Your task to perform on an android device: When is my next appointment? Image 0: 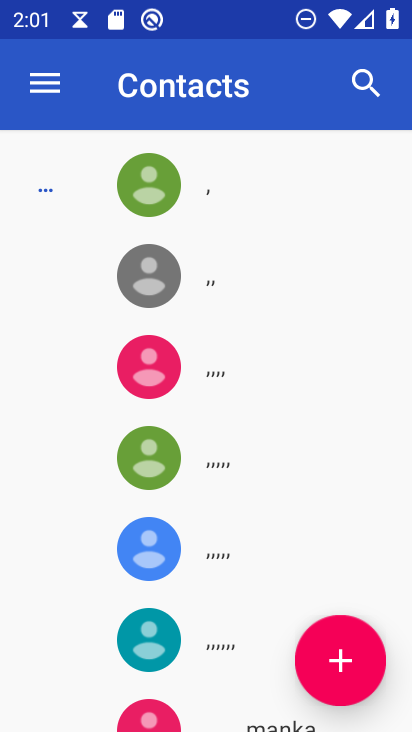
Step 0: press home button
Your task to perform on an android device: When is my next appointment? Image 1: 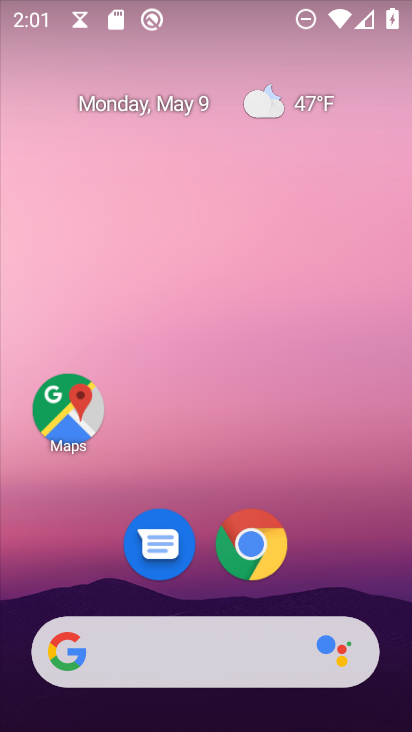
Step 1: drag from (317, 511) to (323, 137)
Your task to perform on an android device: When is my next appointment? Image 2: 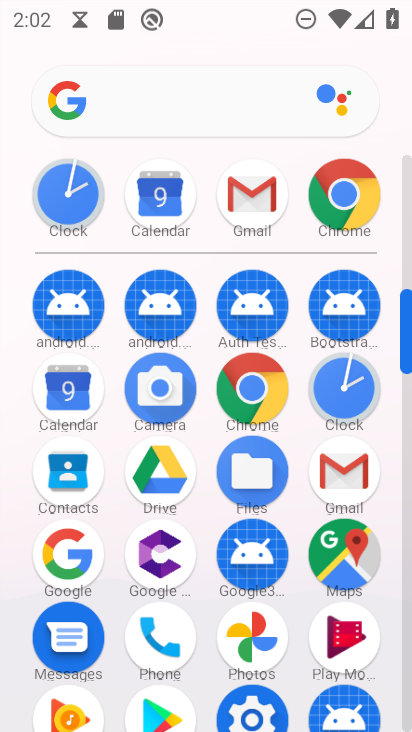
Step 2: click (56, 399)
Your task to perform on an android device: When is my next appointment? Image 3: 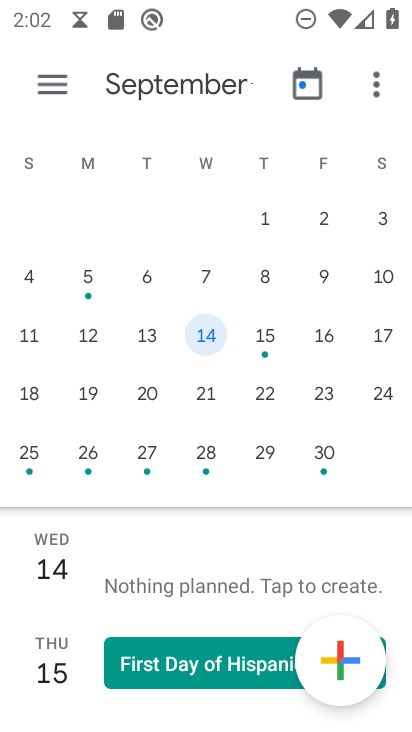
Step 3: click (267, 337)
Your task to perform on an android device: When is my next appointment? Image 4: 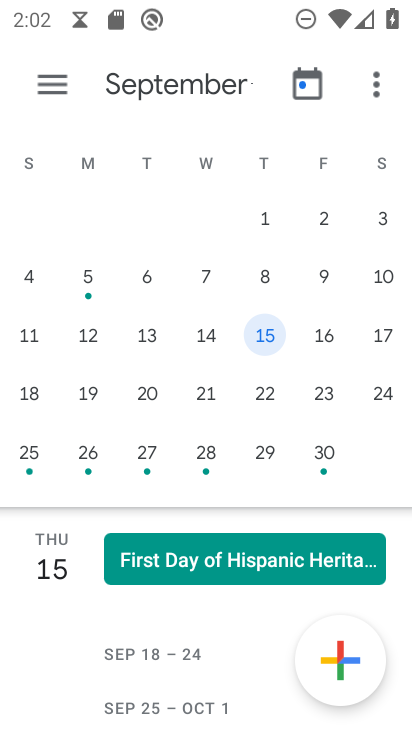
Step 4: task complete